Your task to perform on an android device: turn on notifications settings in the gmail app Image 0: 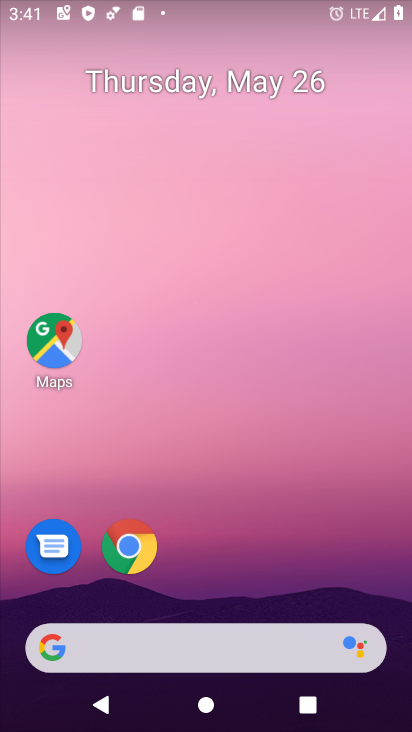
Step 0: drag from (255, 546) to (316, 80)
Your task to perform on an android device: turn on notifications settings in the gmail app Image 1: 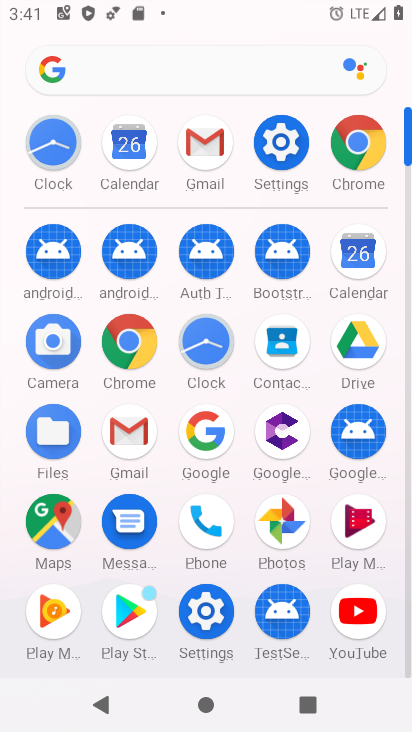
Step 1: click (224, 130)
Your task to perform on an android device: turn on notifications settings in the gmail app Image 2: 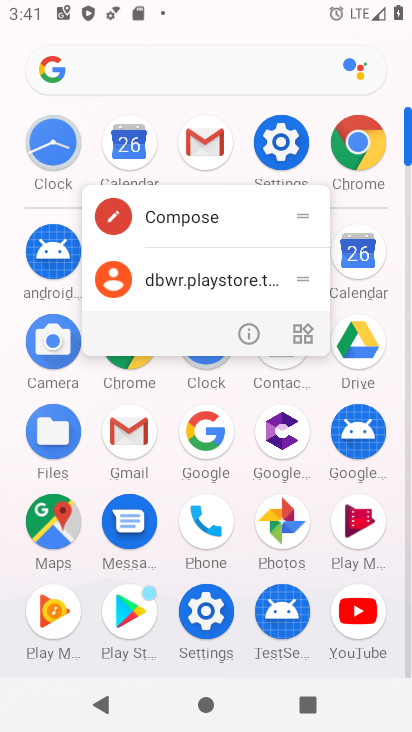
Step 2: click (249, 333)
Your task to perform on an android device: turn on notifications settings in the gmail app Image 3: 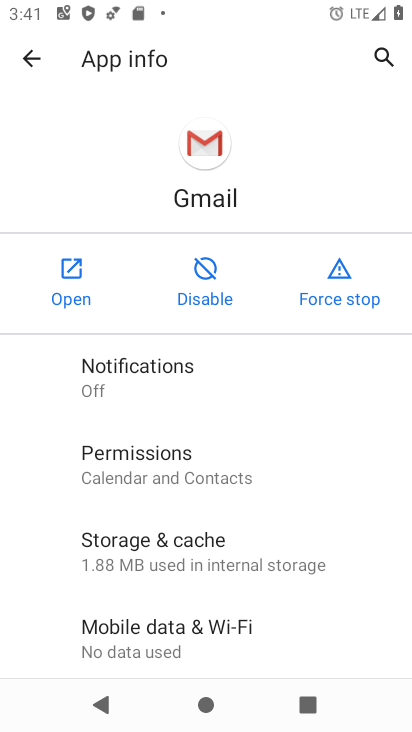
Step 3: click (134, 375)
Your task to perform on an android device: turn on notifications settings in the gmail app Image 4: 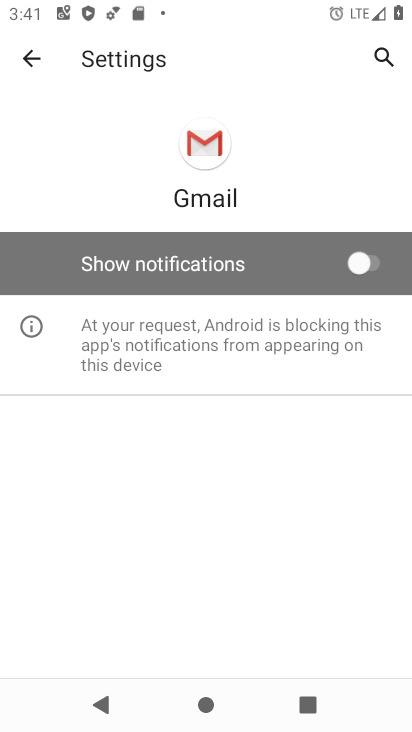
Step 4: click (364, 263)
Your task to perform on an android device: turn on notifications settings in the gmail app Image 5: 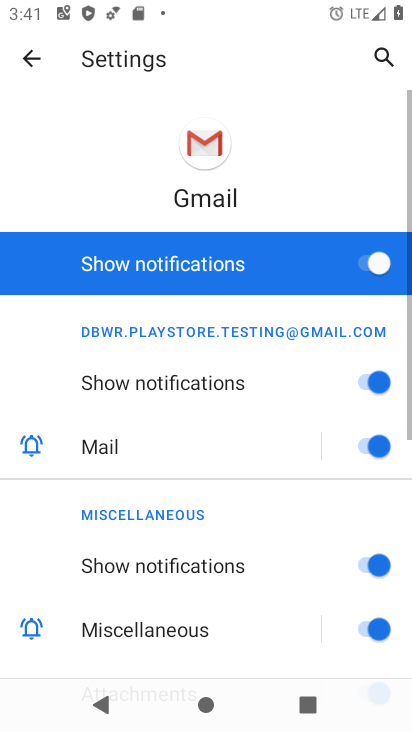
Step 5: task complete